Your task to perform on an android device: find photos in the google photos app Image 0: 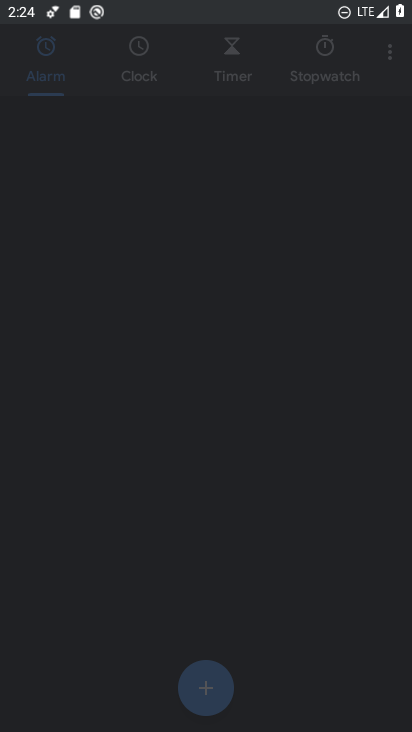
Step 0: drag from (276, 644) to (214, 235)
Your task to perform on an android device: find photos in the google photos app Image 1: 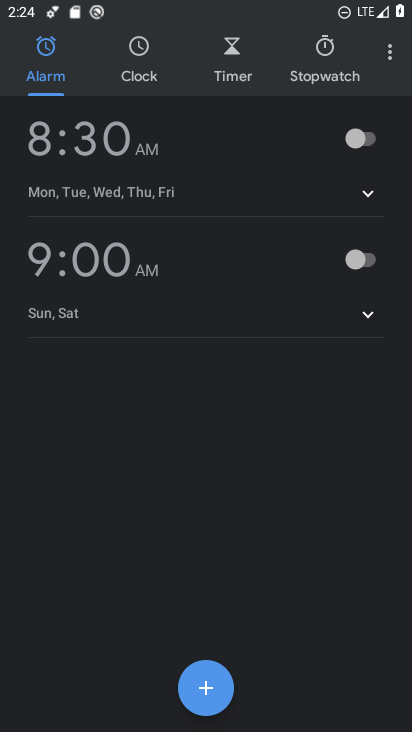
Step 1: press home button
Your task to perform on an android device: find photos in the google photos app Image 2: 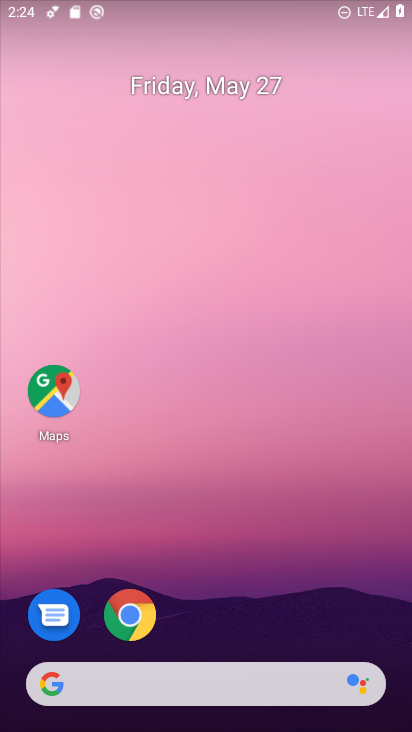
Step 2: drag from (208, 571) to (220, 233)
Your task to perform on an android device: find photos in the google photos app Image 3: 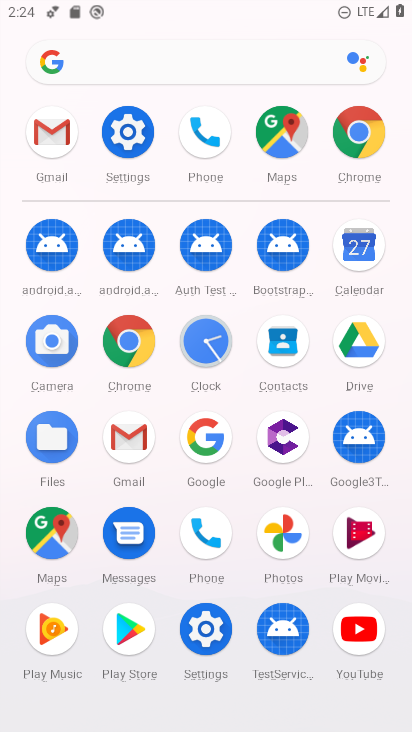
Step 3: click (273, 539)
Your task to perform on an android device: find photos in the google photos app Image 4: 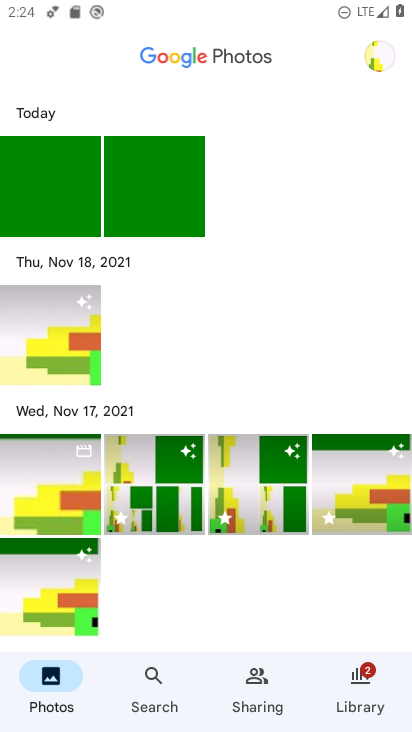
Step 4: drag from (251, 316) to (275, 611)
Your task to perform on an android device: find photos in the google photos app Image 5: 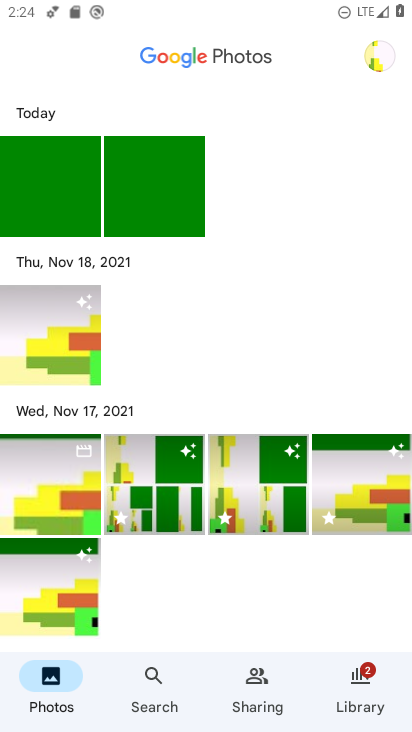
Step 5: drag from (193, 634) to (181, 235)
Your task to perform on an android device: find photos in the google photos app Image 6: 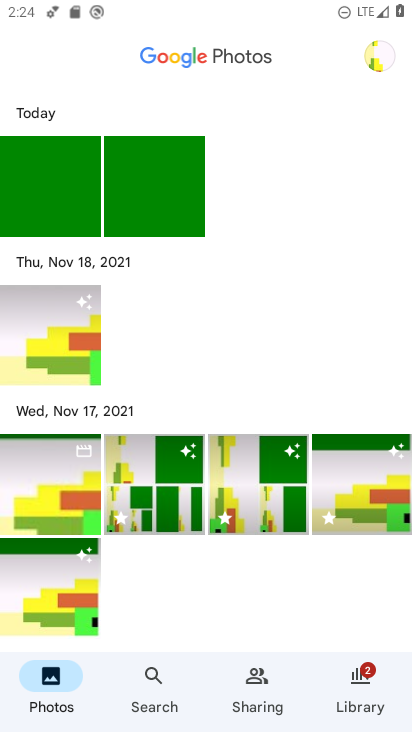
Step 6: drag from (248, 284) to (281, 593)
Your task to perform on an android device: find photos in the google photos app Image 7: 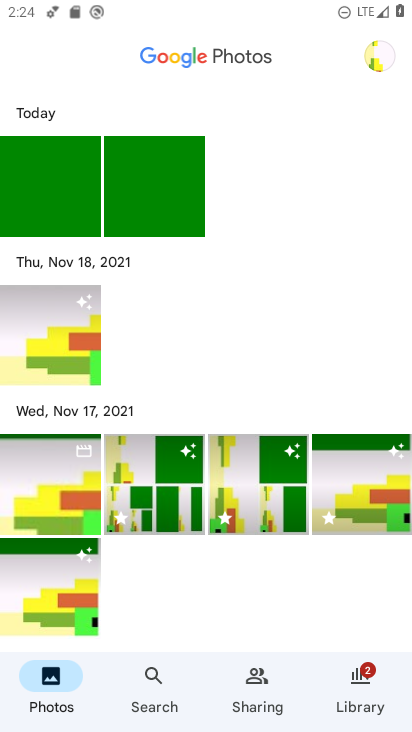
Step 7: click (60, 204)
Your task to perform on an android device: find photos in the google photos app Image 8: 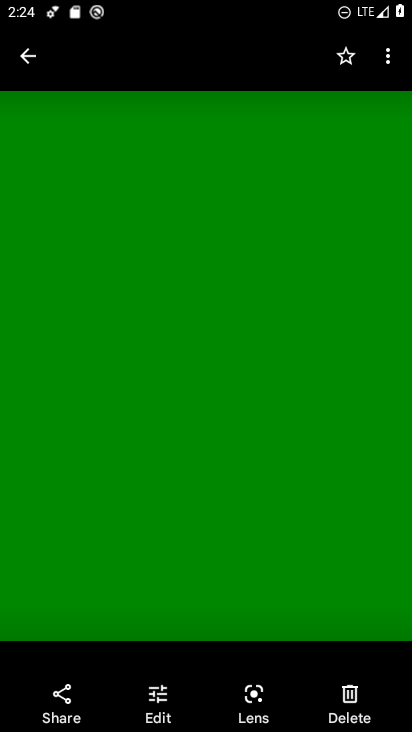
Step 8: task complete